Your task to perform on an android device: turn off wifi Image 0: 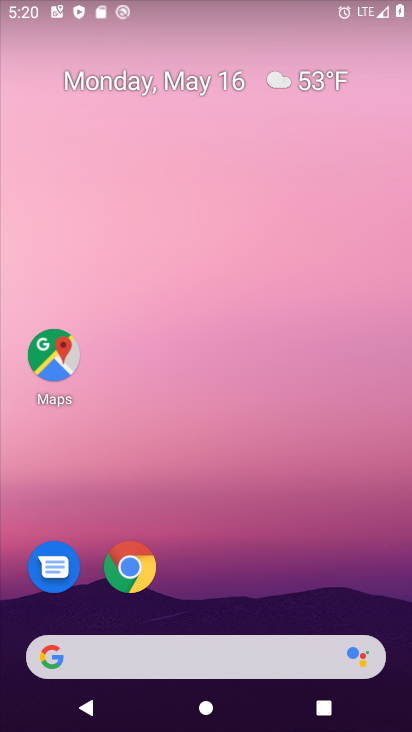
Step 0: drag from (351, 603) to (321, 76)
Your task to perform on an android device: turn off wifi Image 1: 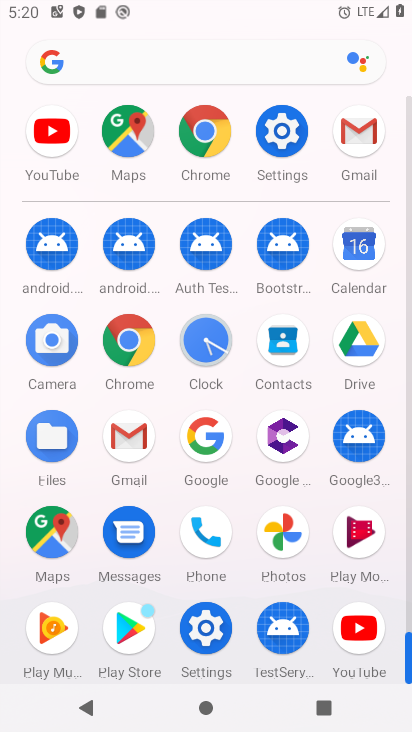
Step 1: click (295, 143)
Your task to perform on an android device: turn off wifi Image 2: 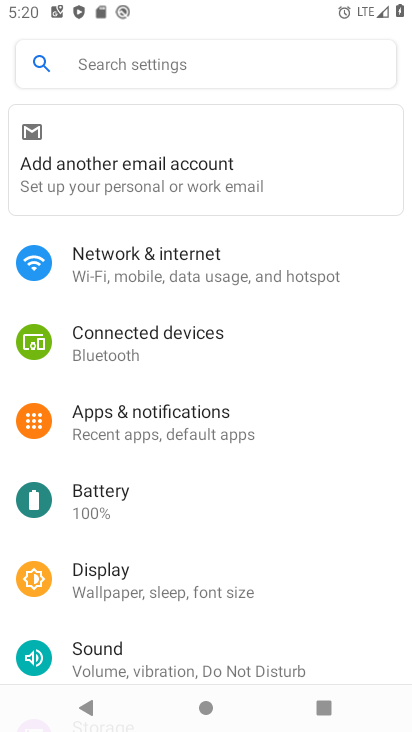
Step 2: click (295, 275)
Your task to perform on an android device: turn off wifi Image 3: 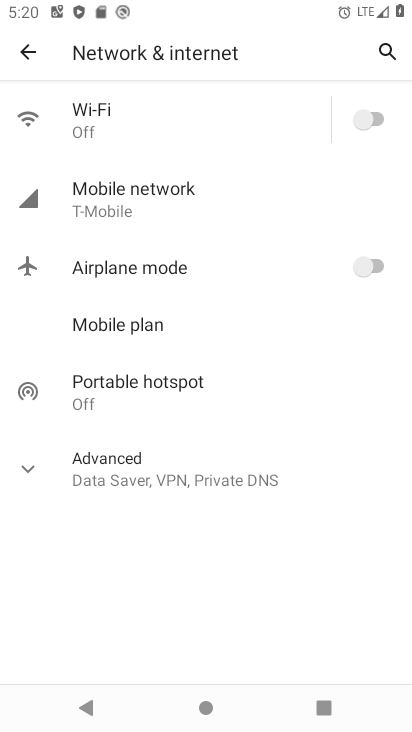
Step 3: task complete